Your task to perform on an android device: uninstall "Cash App" Image 0: 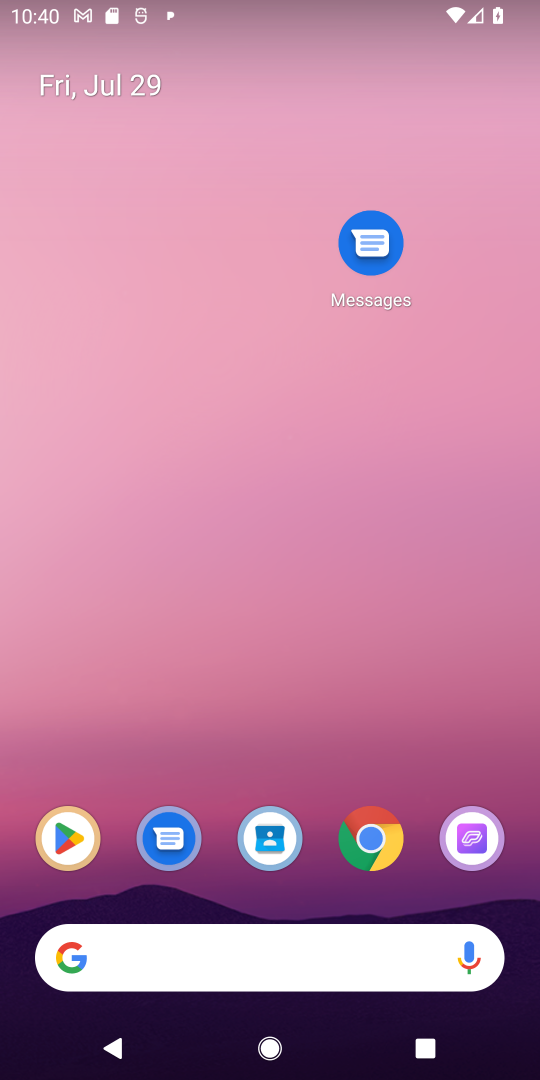
Step 0: click (96, 844)
Your task to perform on an android device: uninstall "Cash App" Image 1: 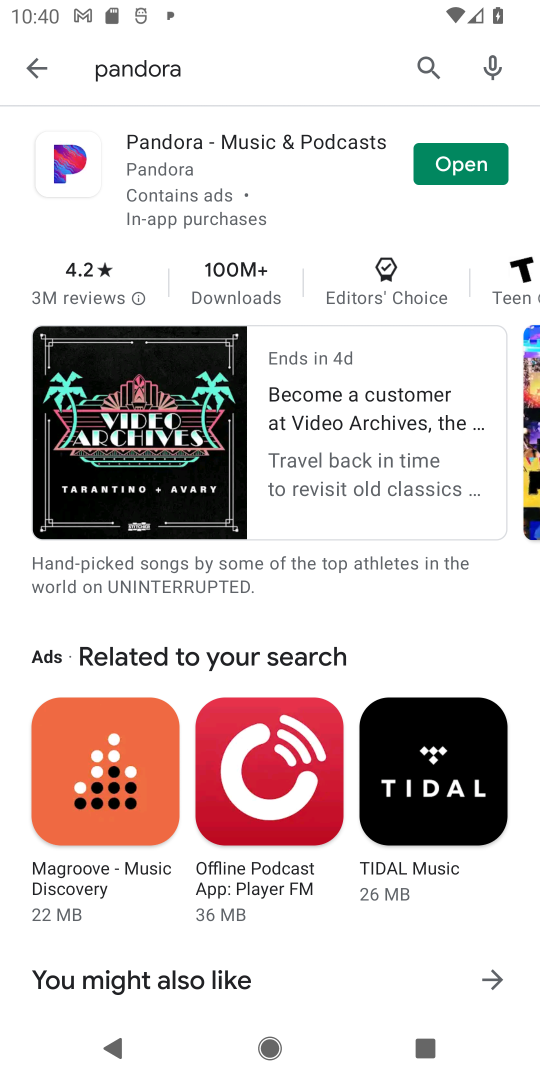
Step 1: click (286, 84)
Your task to perform on an android device: uninstall "Cash App" Image 2: 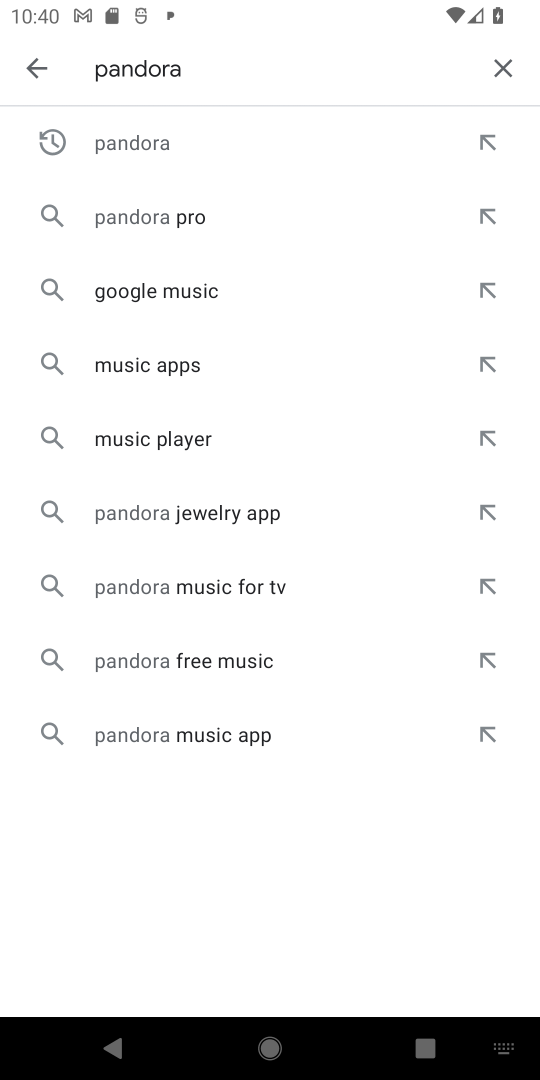
Step 2: click (494, 57)
Your task to perform on an android device: uninstall "Cash App" Image 3: 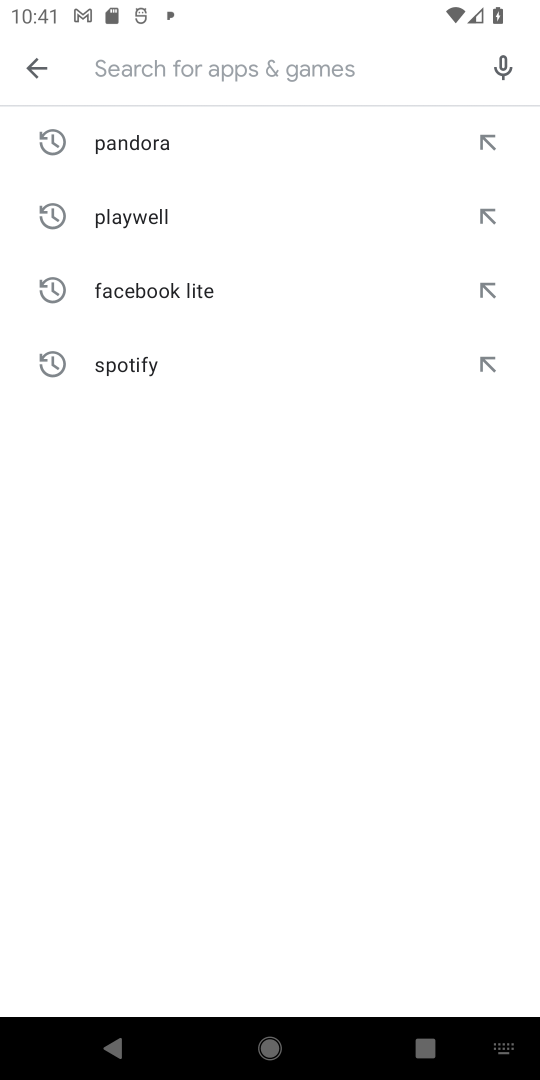
Step 3: type "cashapp"
Your task to perform on an android device: uninstall "Cash App" Image 4: 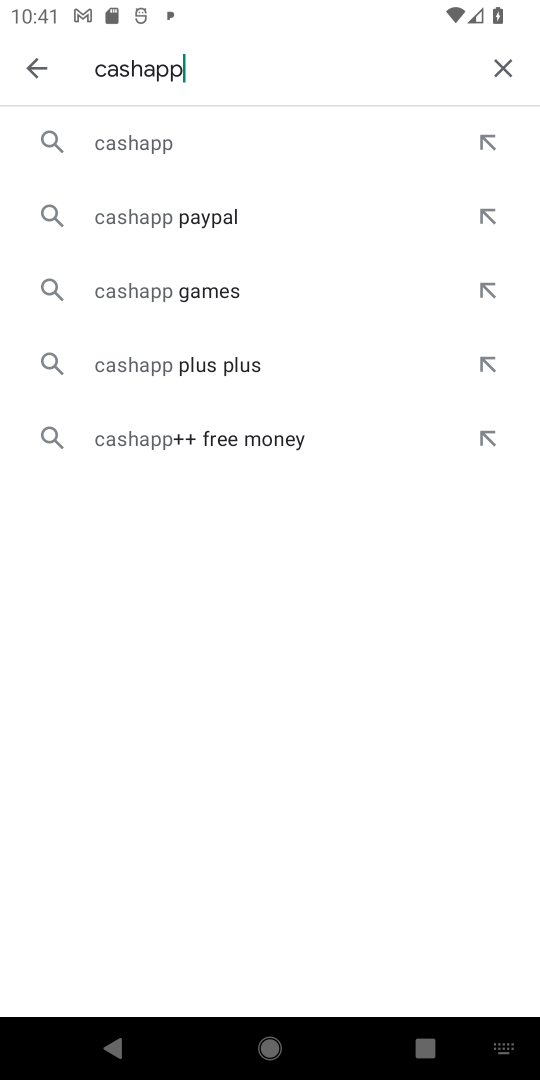
Step 4: click (181, 152)
Your task to perform on an android device: uninstall "Cash App" Image 5: 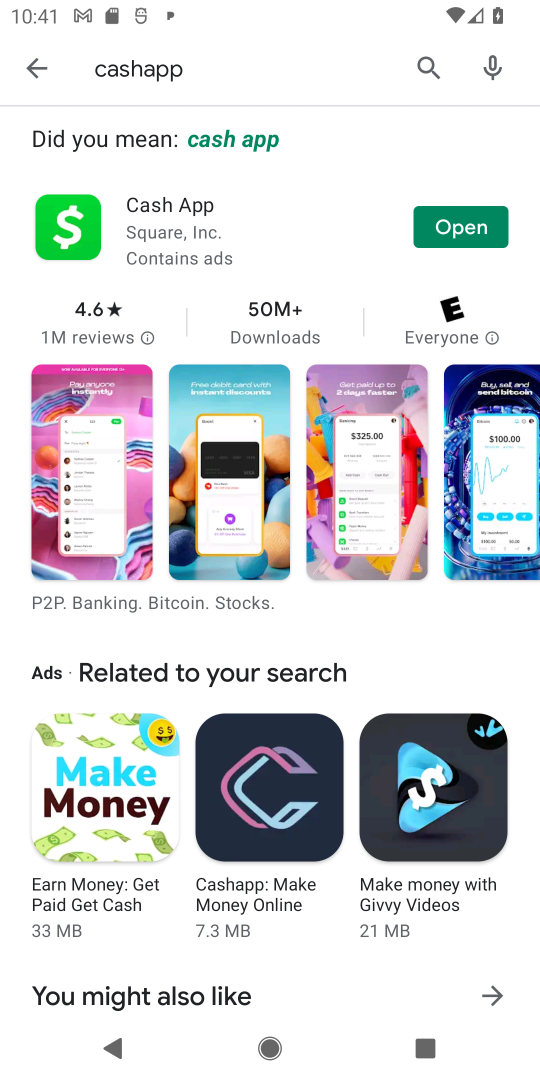
Step 5: click (188, 227)
Your task to perform on an android device: uninstall "Cash App" Image 6: 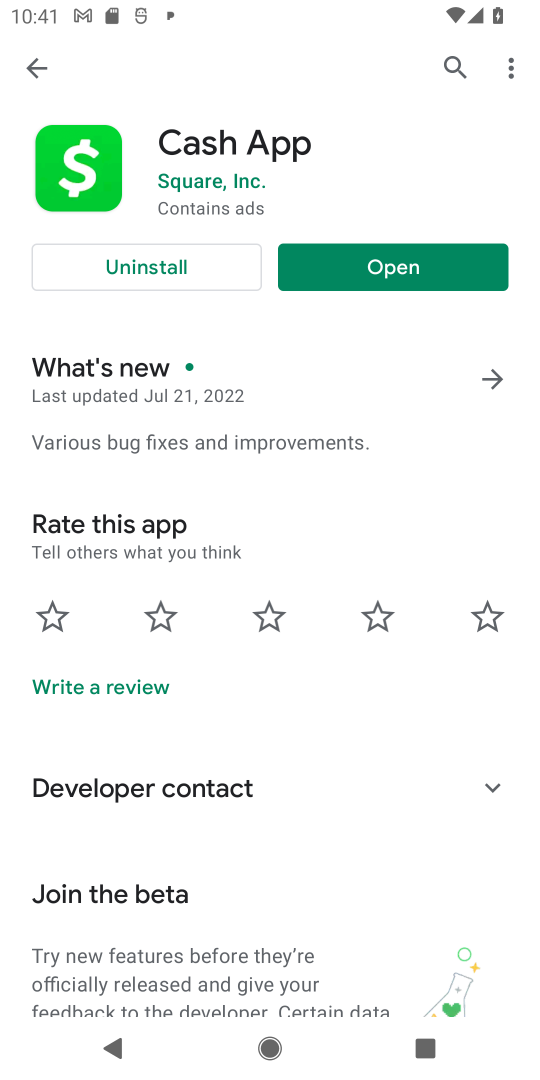
Step 6: click (159, 268)
Your task to perform on an android device: uninstall "Cash App" Image 7: 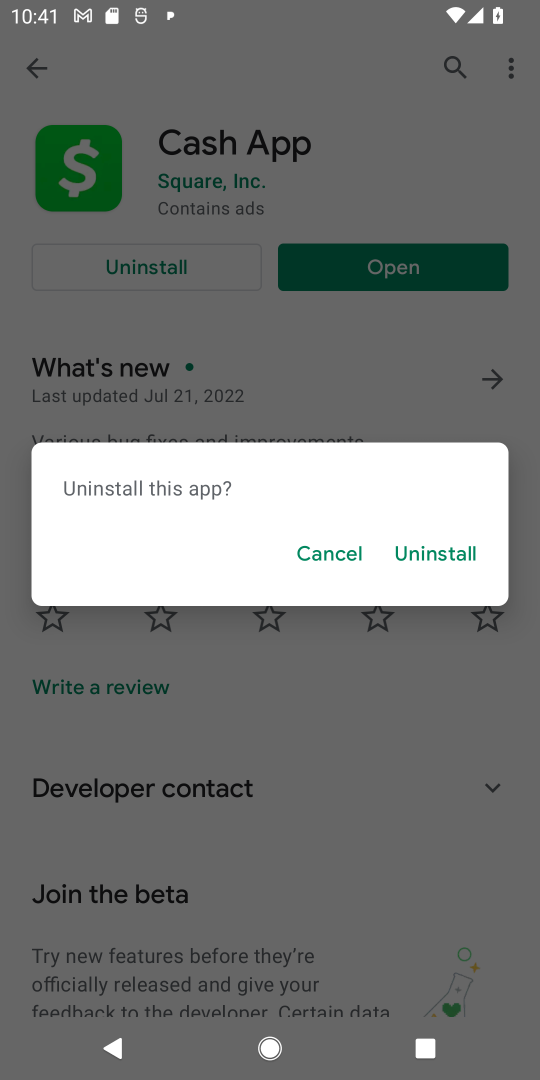
Step 7: click (443, 547)
Your task to perform on an android device: uninstall "Cash App" Image 8: 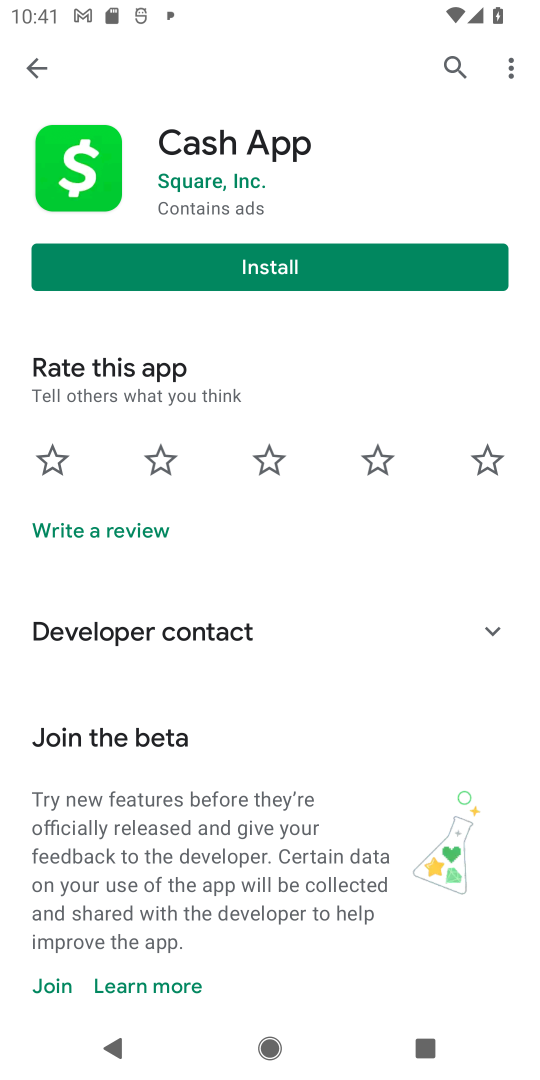
Step 8: task complete